Your task to perform on an android device: change the clock display to show seconds Image 0: 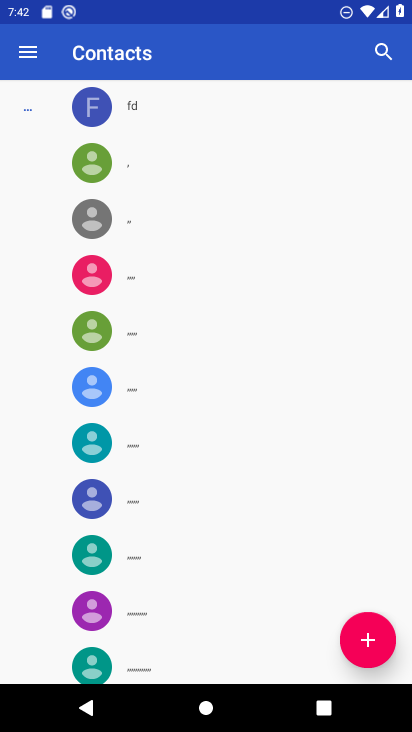
Step 0: press back button
Your task to perform on an android device: change the clock display to show seconds Image 1: 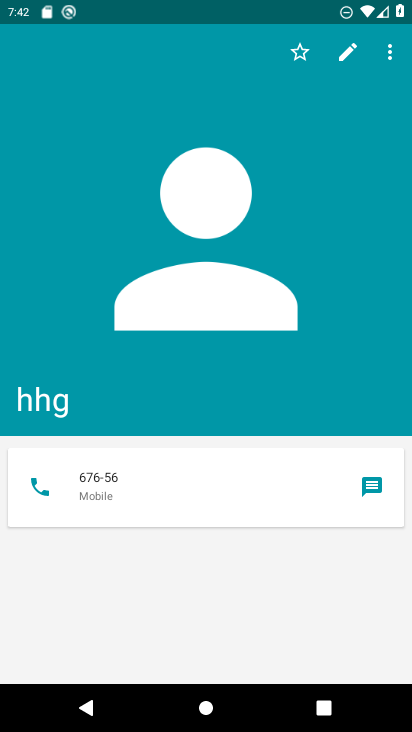
Step 1: press back button
Your task to perform on an android device: change the clock display to show seconds Image 2: 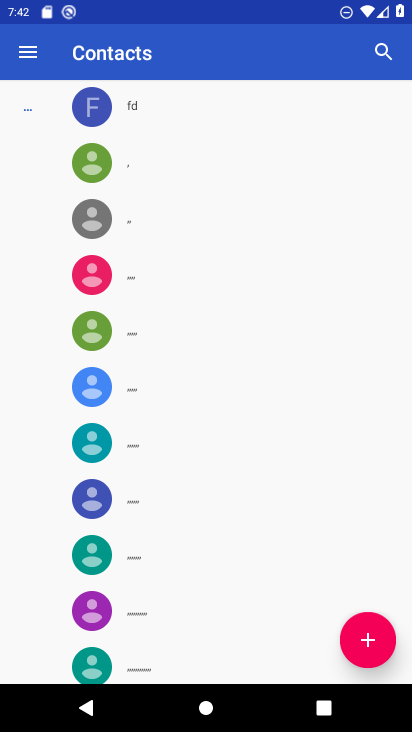
Step 2: press back button
Your task to perform on an android device: change the clock display to show seconds Image 3: 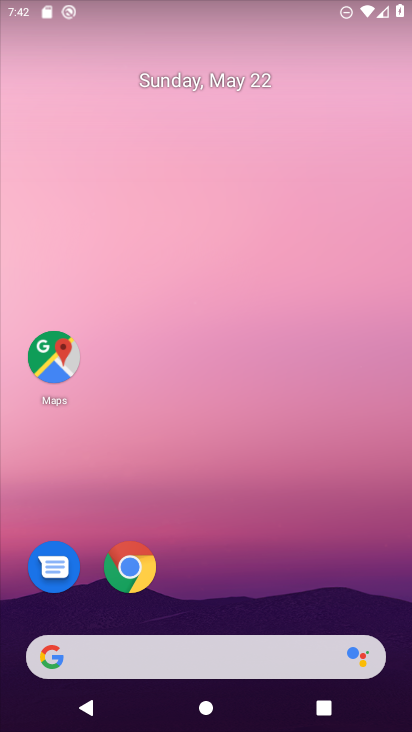
Step 3: drag from (291, 569) to (355, 3)
Your task to perform on an android device: change the clock display to show seconds Image 4: 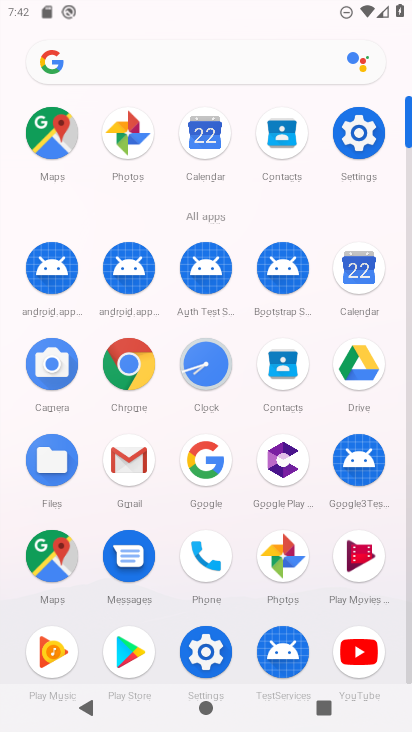
Step 4: click (206, 375)
Your task to perform on an android device: change the clock display to show seconds Image 5: 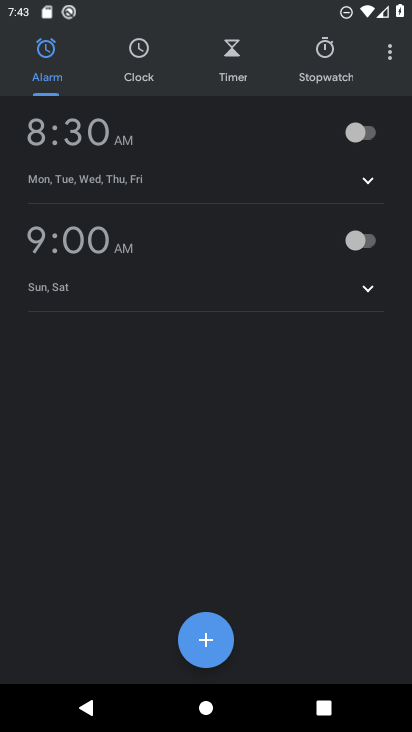
Step 5: click (388, 53)
Your task to perform on an android device: change the clock display to show seconds Image 6: 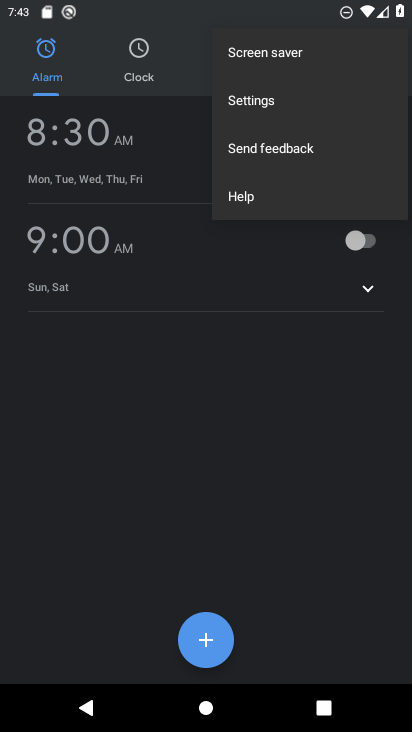
Step 6: click (261, 91)
Your task to perform on an android device: change the clock display to show seconds Image 7: 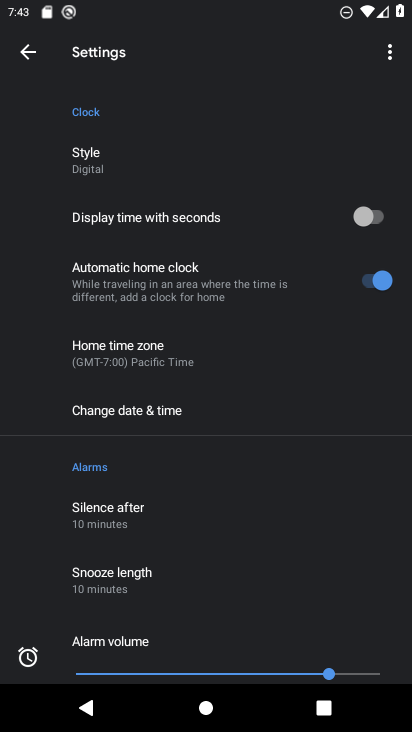
Step 7: click (354, 212)
Your task to perform on an android device: change the clock display to show seconds Image 8: 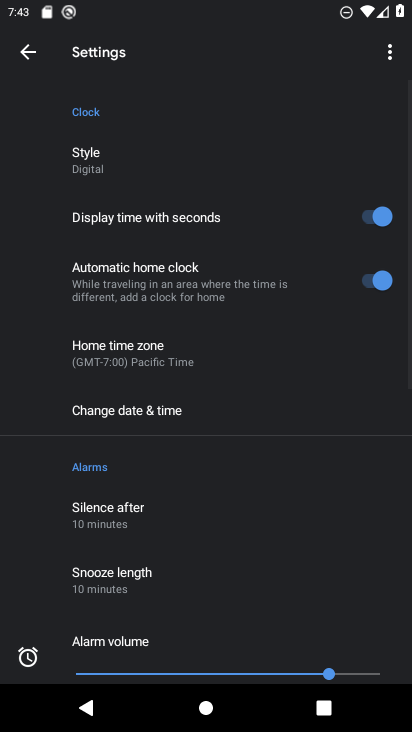
Step 8: task complete